Your task to perform on an android device: turn pop-ups on in chrome Image 0: 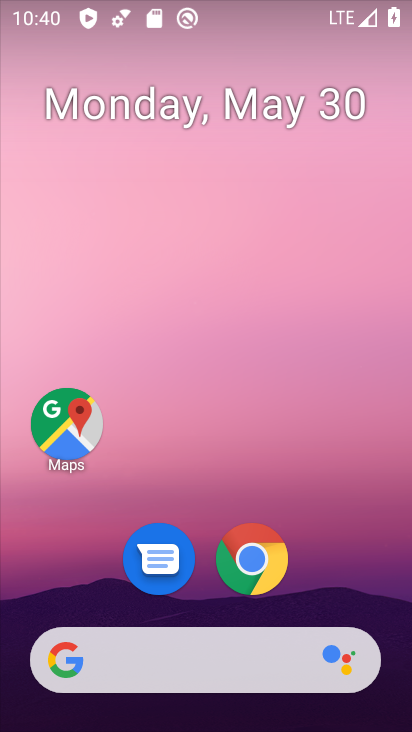
Step 0: click (255, 565)
Your task to perform on an android device: turn pop-ups on in chrome Image 1: 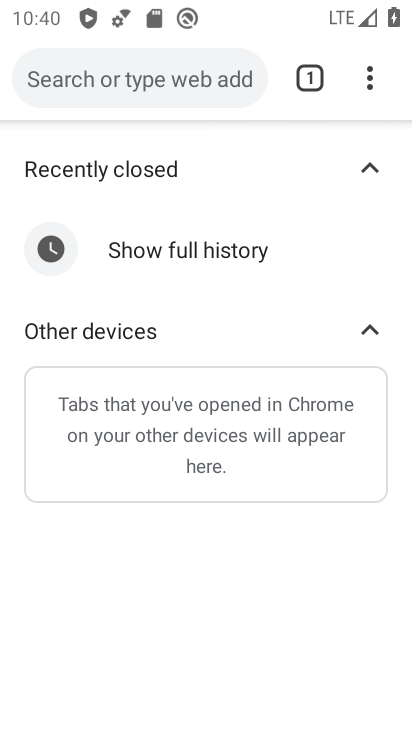
Step 1: click (374, 80)
Your task to perform on an android device: turn pop-ups on in chrome Image 2: 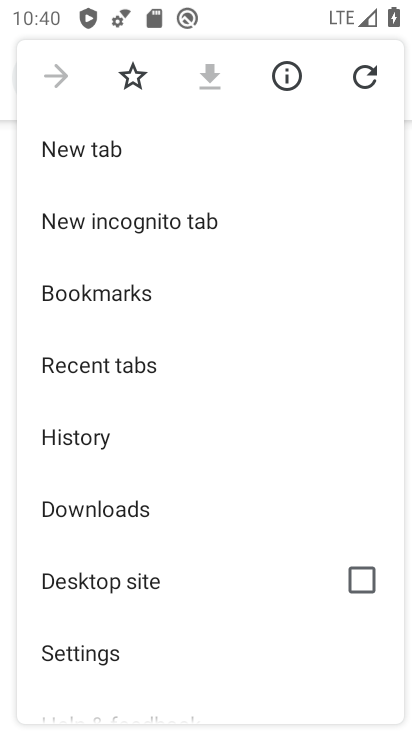
Step 2: drag from (152, 623) to (136, 351)
Your task to perform on an android device: turn pop-ups on in chrome Image 3: 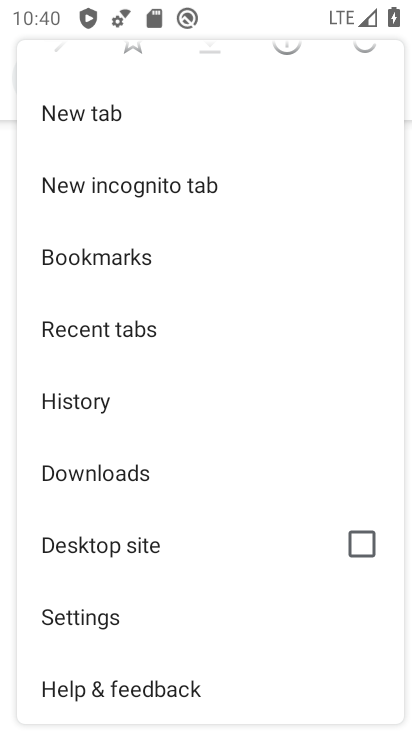
Step 3: click (62, 632)
Your task to perform on an android device: turn pop-ups on in chrome Image 4: 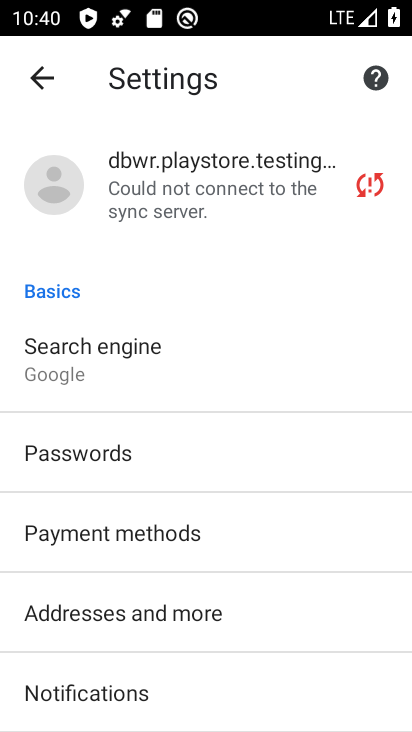
Step 4: drag from (174, 669) to (121, 377)
Your task to perform on an android device: turn pop-ups on in chrome Image 5: 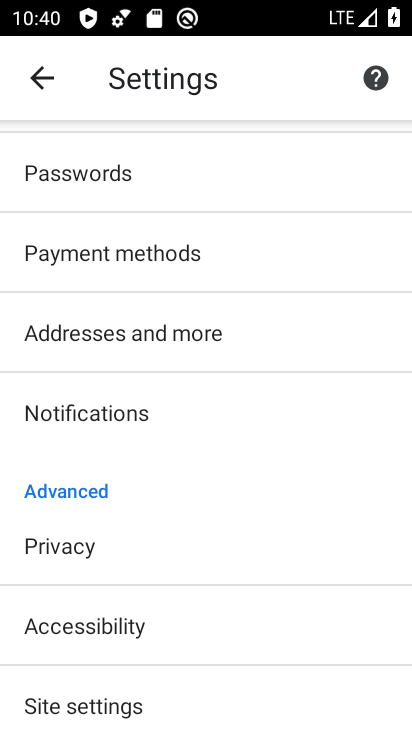
Step 5: drag from (177, 641) to (146, 346)
Your task to perform on an android device: turn pop-ups on in chrome Image 6: 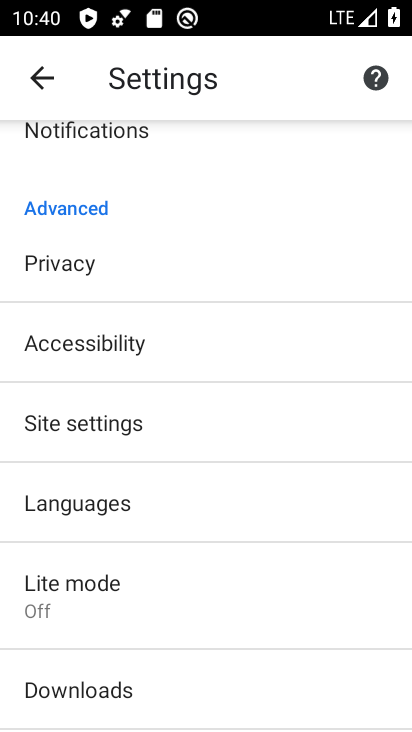
Step 6: click (129, 430)
Your task to perform on an android device: turn pop-ups on in chrome Image 7: 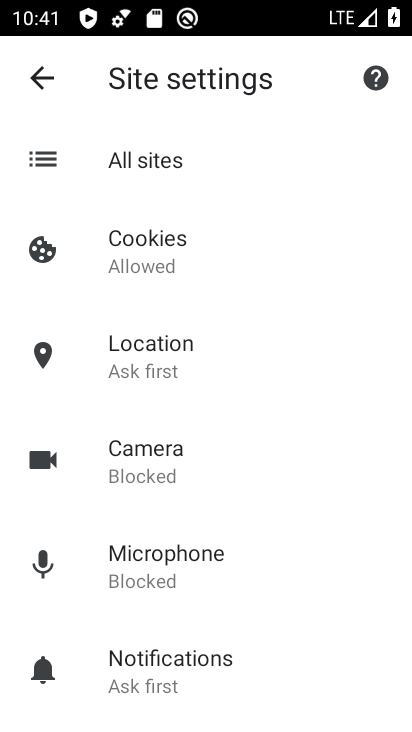
Step 7: drag from (230, 644) to (163, 223)
Your task to perform on an android device: turn pop-ups on in chrome Image 8: 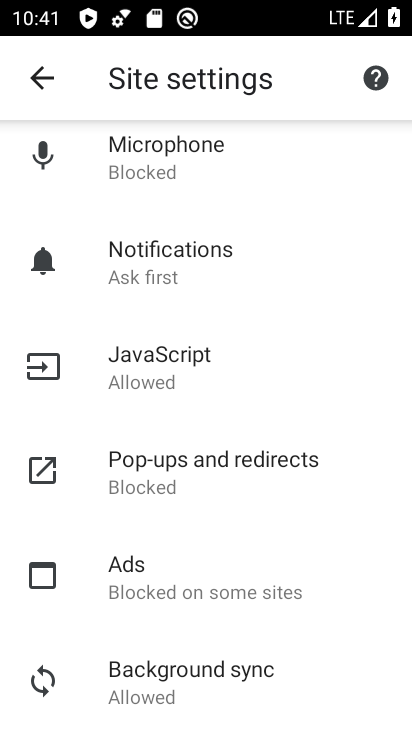
Step 8: click (267, 479)
Your task to perform on an android device: turn pop-ups on in chrome Image 9: 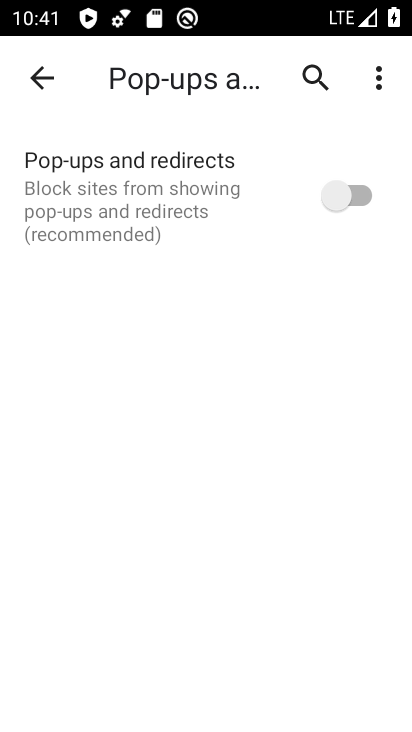
Step 9: click (366, 204)
Your task to perform on an android device: turn pop-ups on in chrome Image 10: 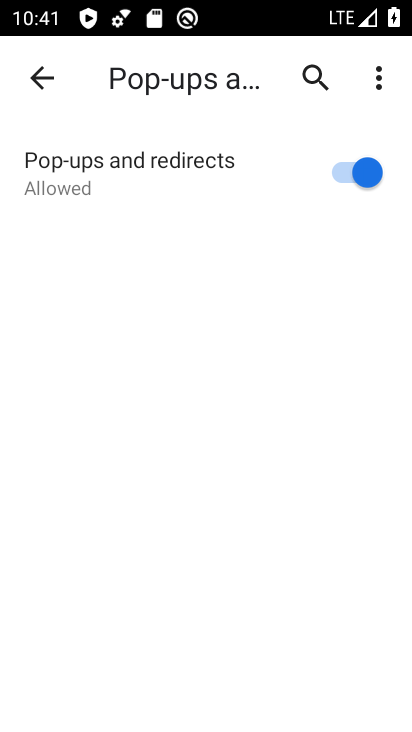
Step 10: task complete